Your task to perform on an android device: Clear the shopping cart on bestbuy.com. Add "bose soundsport free" to the cart on bestbuy.com Image 0: 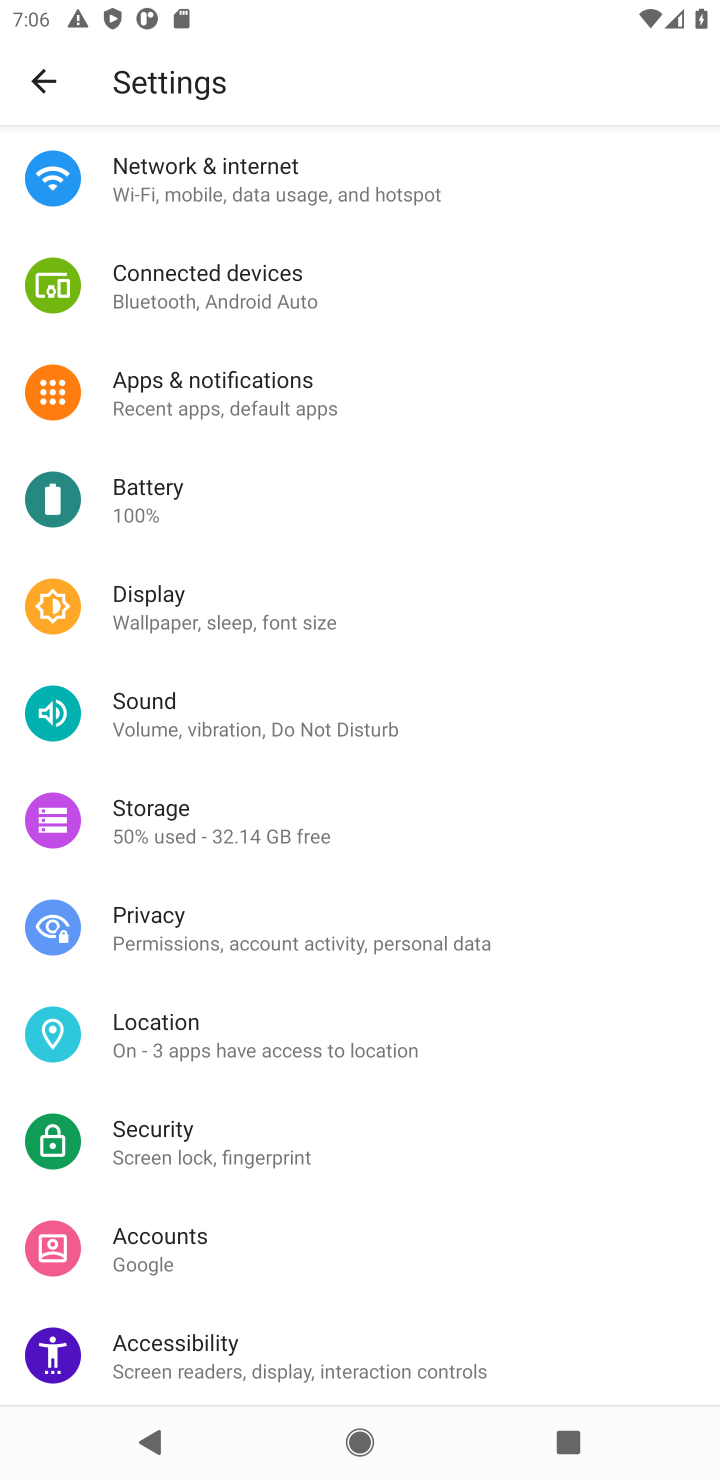
Step 0: press home button
Your task to perform on an android device: Clear the shopping cart on bestbuy.com. Add "bose soundsport free" to the cart on bestbuy.com Image 1: 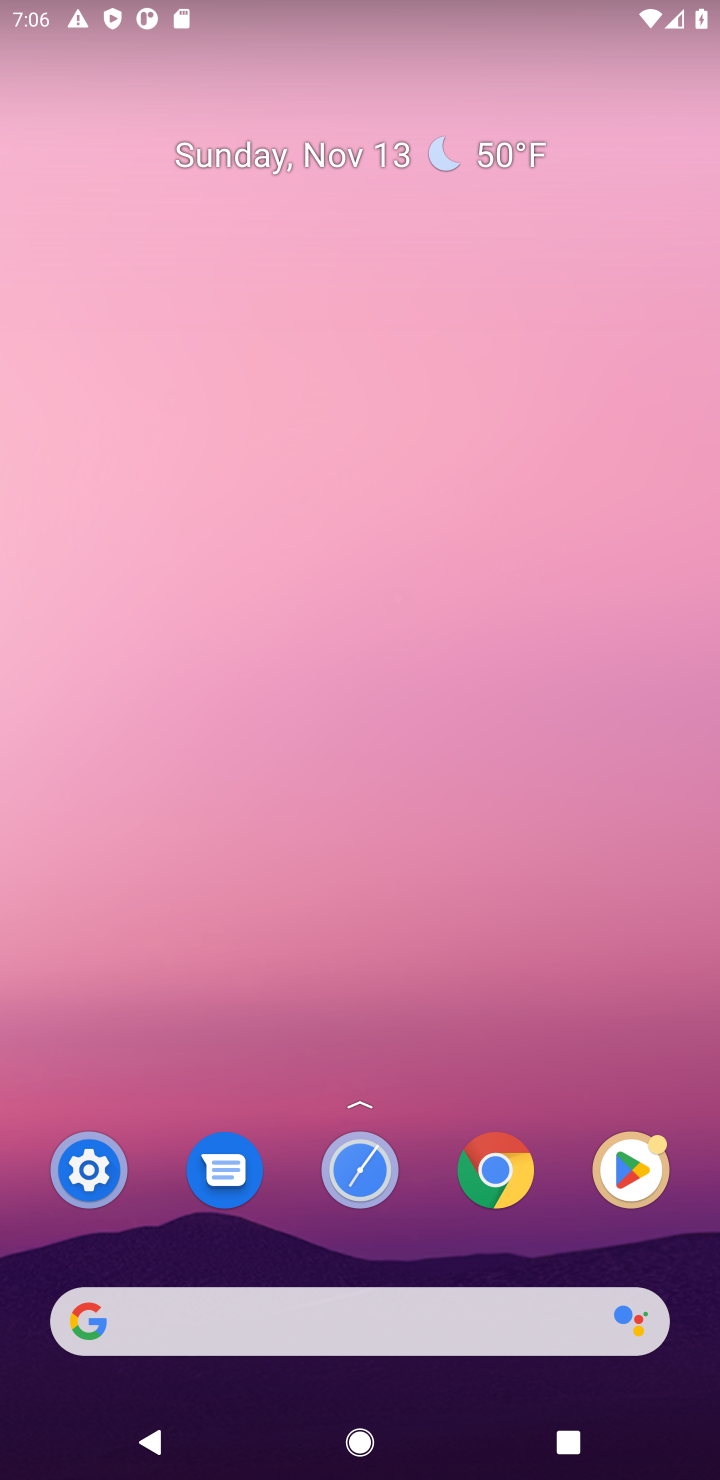
Step 1: click (332, 1341)
Your task to perform on an android device: Clear the shopping cart on bestbuy.com. Add "bose soundsport free" to the cart on bestbuy.com Image 2: 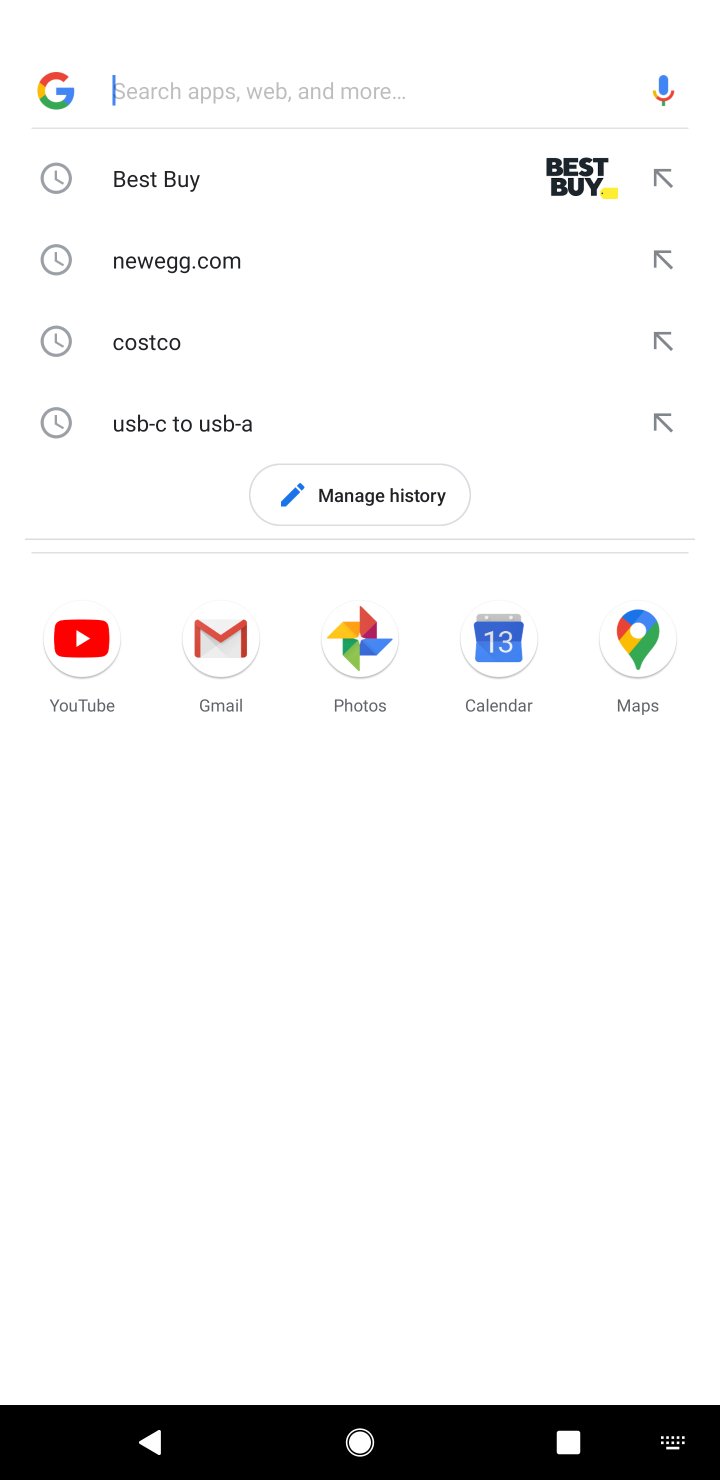
Step 2: type "bestbuy"
Your task to perform on an android device: Clear the shopping cart on bestbuy.com. Add "bose soundsport free" to the cart on bestbuy.com Image 3: 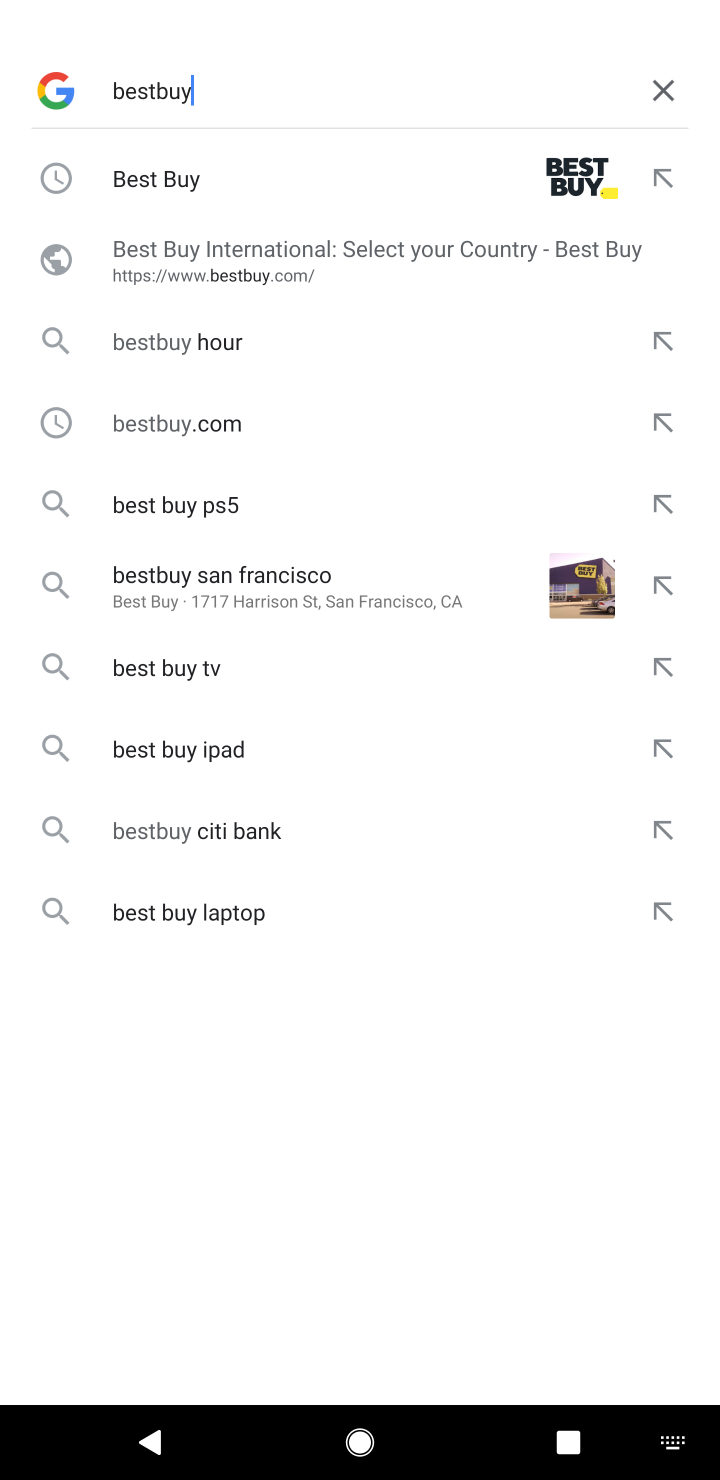
Step 3: click (168, 166)
Your task to perform on an android device: Clear the shopping cart on bestbuy.com. Add "bose soundsport free" to the cart on bestbuy.com Image 4: 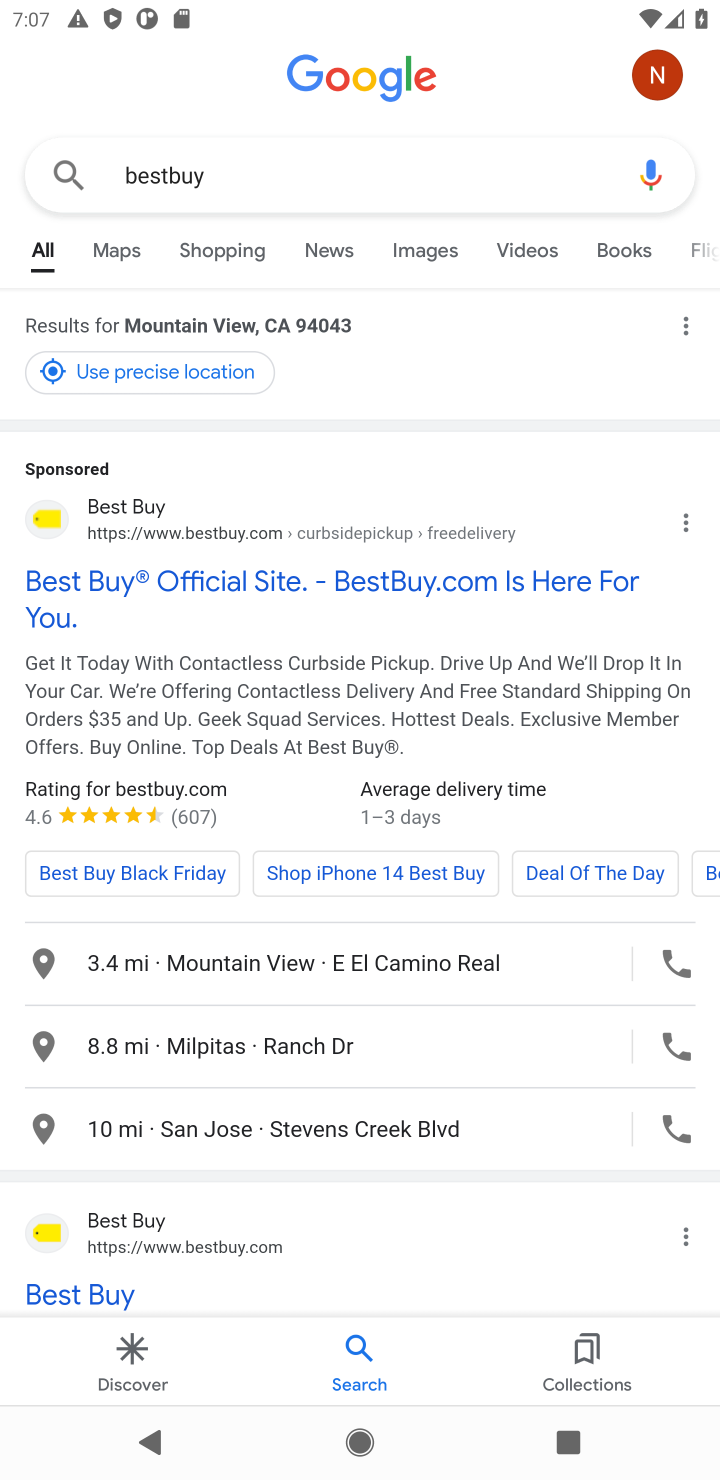
Step 4: click (230, 557)
Your task to perform on an android device: Clear the shopping cart on bestbuy.com. Add "bose soundsport free" to the cart on bestbuy.com Image 5: 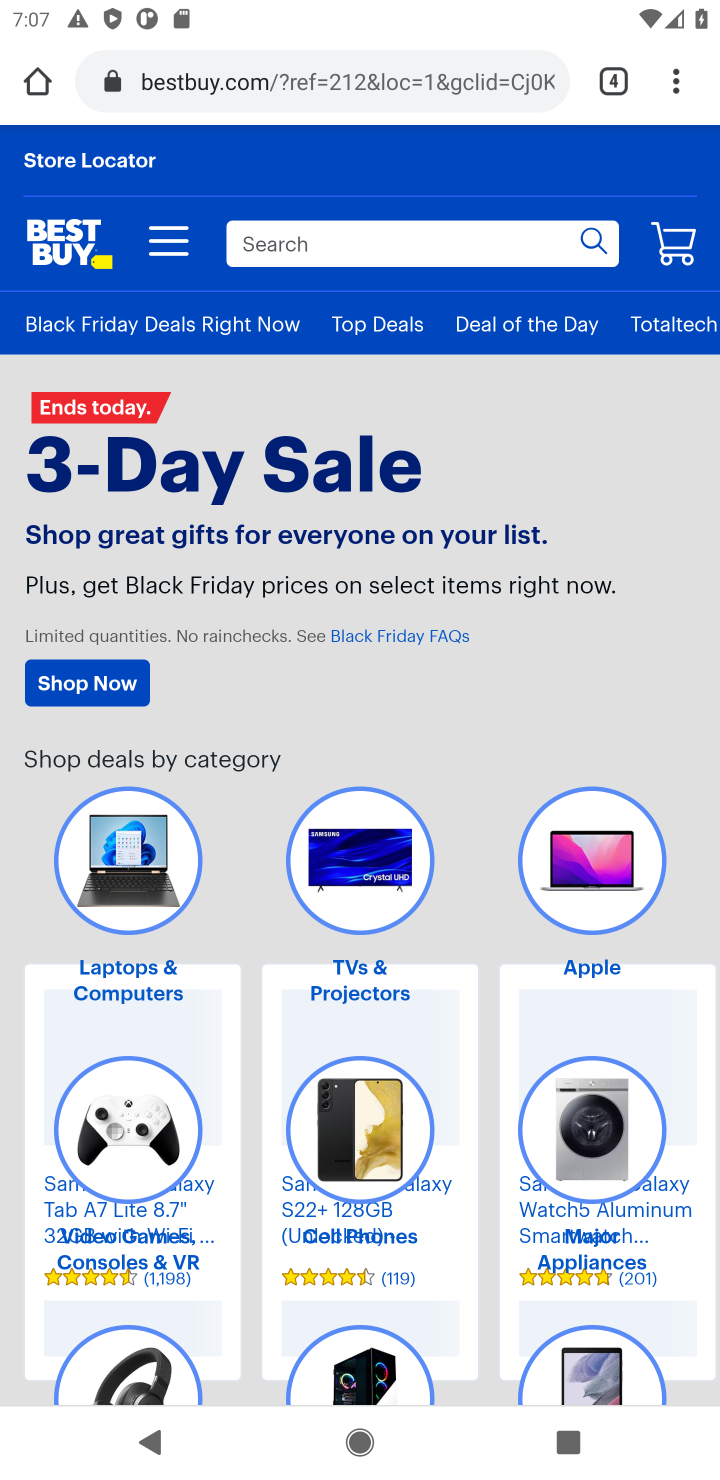
Step 5: click (386, 249)
Your task to perform on an android device: Clear the shopping cart on bestbuy.com. Add "bose soundsport free" to the cart on bestbuy.com Image 6: 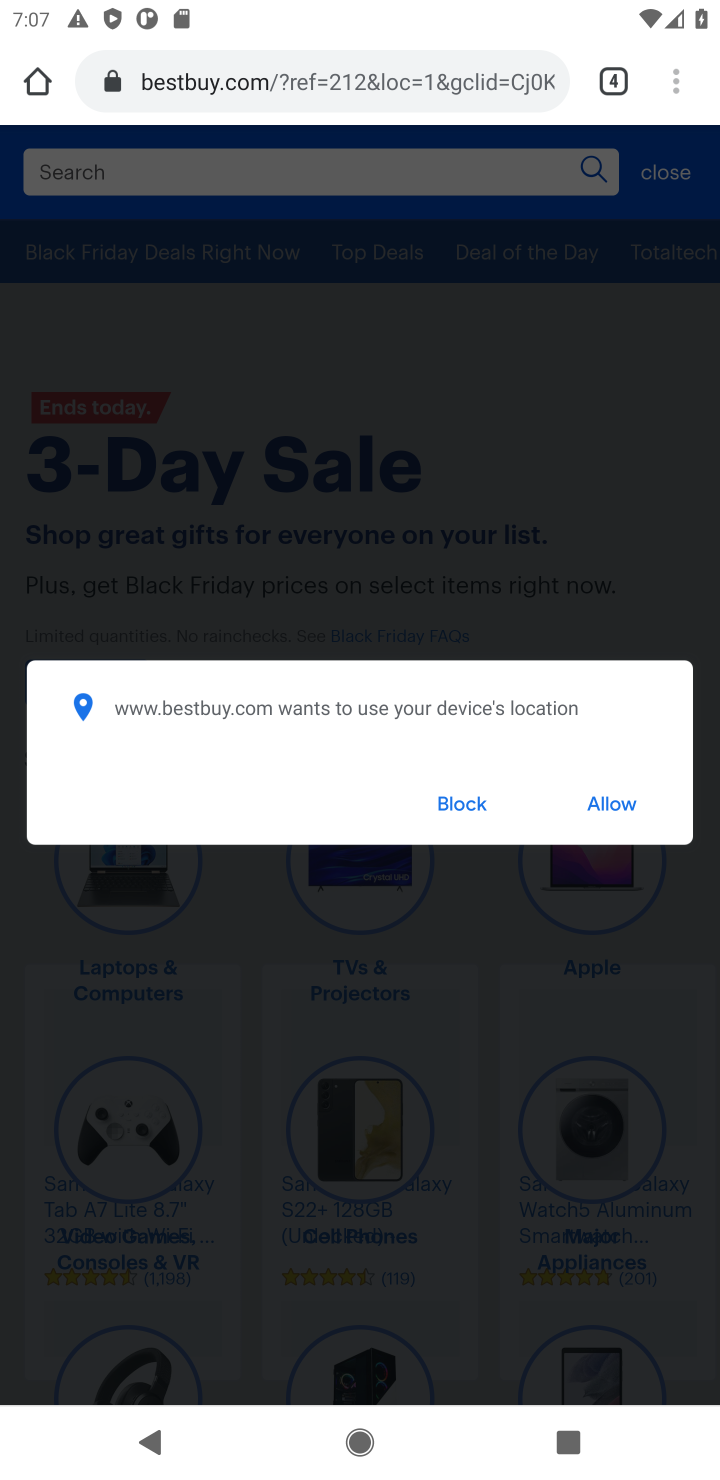
Step 6: type "bose sport free"
Your task to perform on an android device: Clear the shopping cart on bestbuy.com. Add "bose soundsport free" to the cart on bestbuy.com Image 7: 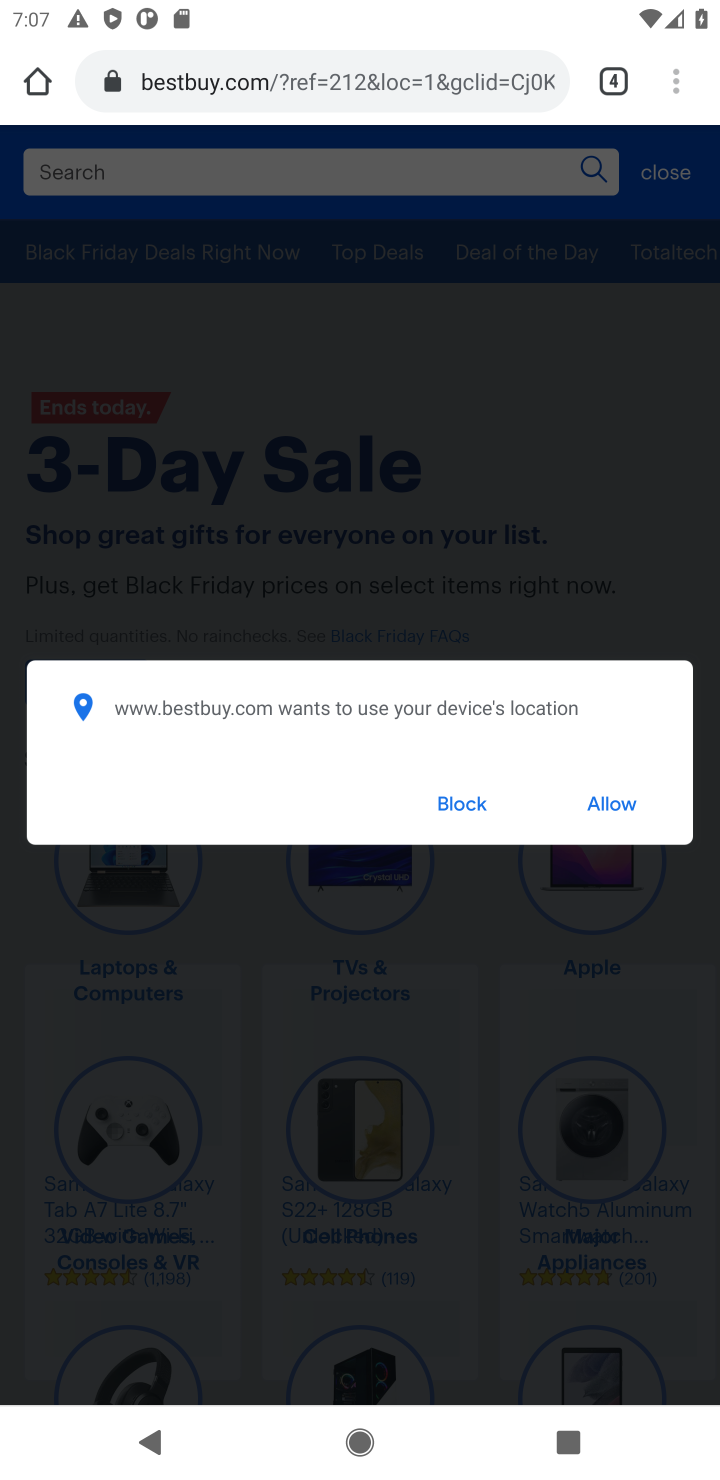
Step 7: click (485, 810)
Your task to perform on an android device: Clear the shopping cart on bestbuy.com. Add "bose soundsport free" to the cart on bestbuy.com Image 8: 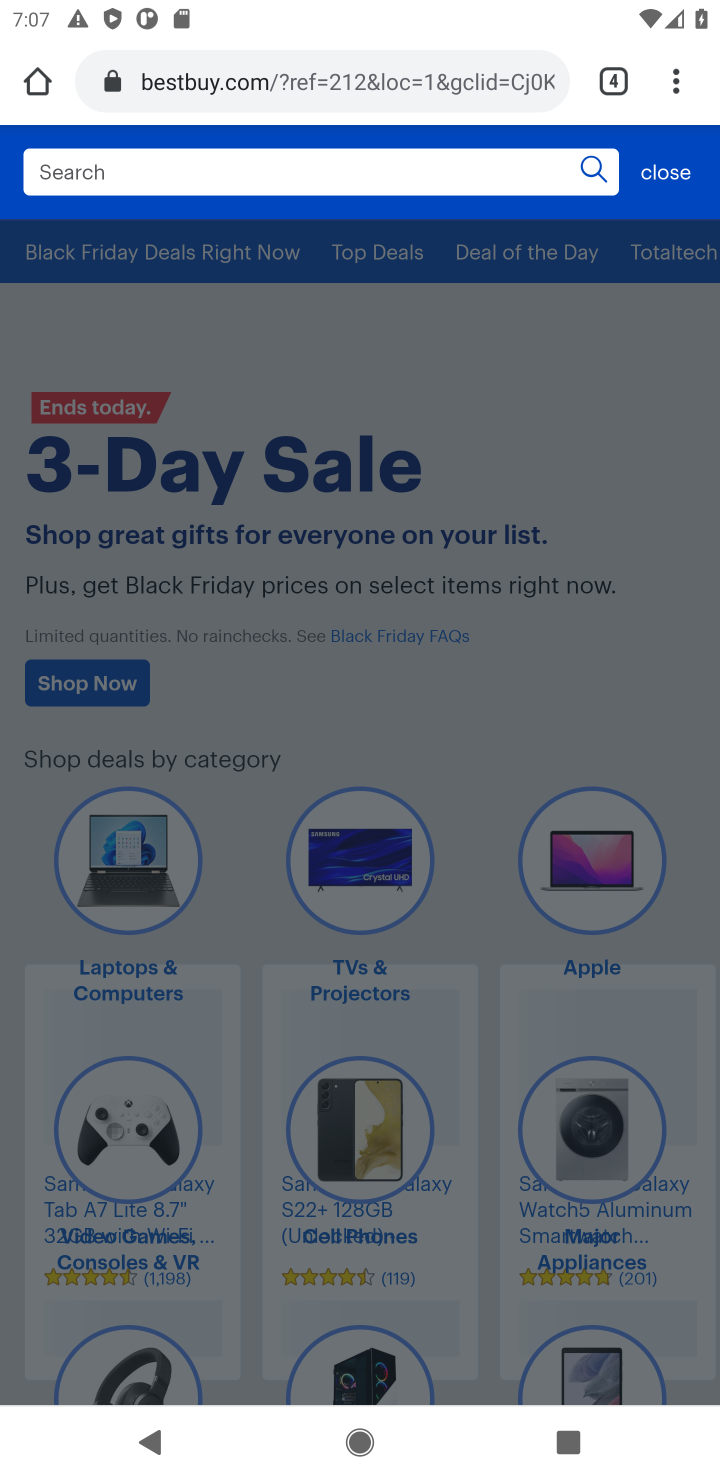
Step 8: task complete